Your task to perform on an android device: Go to Yahoo.com Image 0: 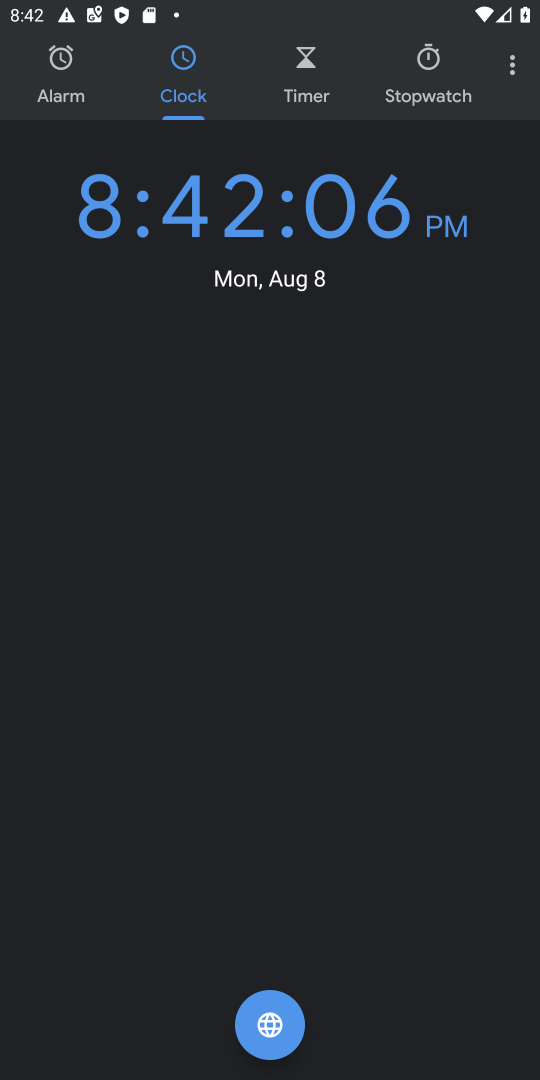
Step 0: press home button
Your task to perform on an android device: Go to Yahoo.com Image 1: 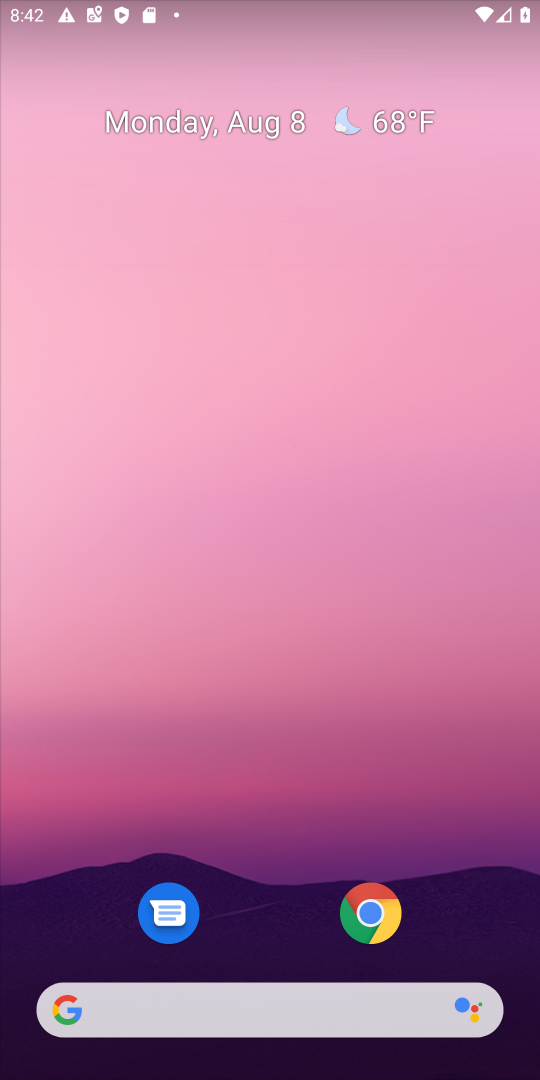
Step 1: click (367, 917)
Your task to perform on an android device: Go to Yahoo.com Image 2: 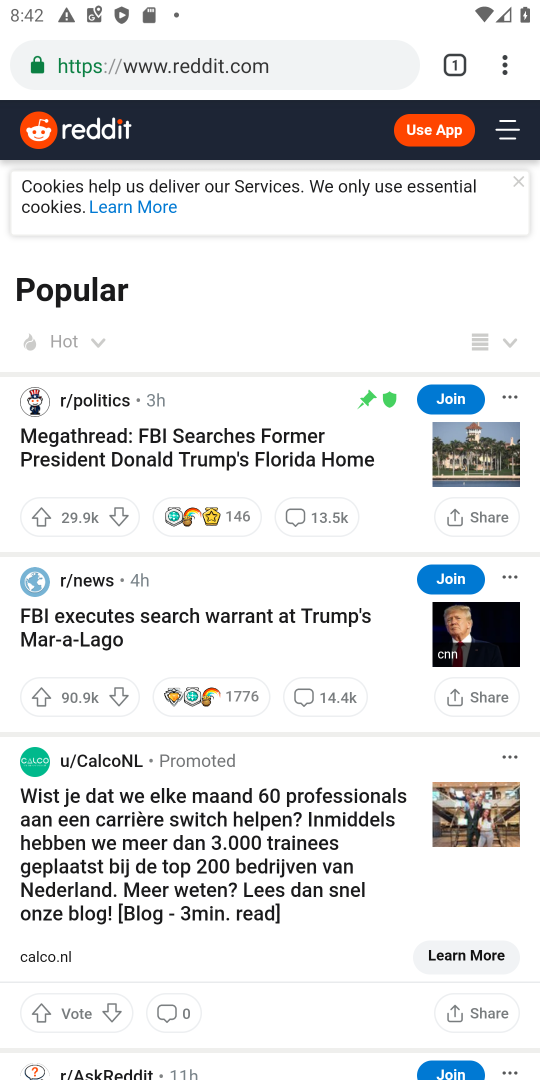
Step 2: click (316, 74)
Your task to perform on an android device: Go to Yahoo.com Image 3: 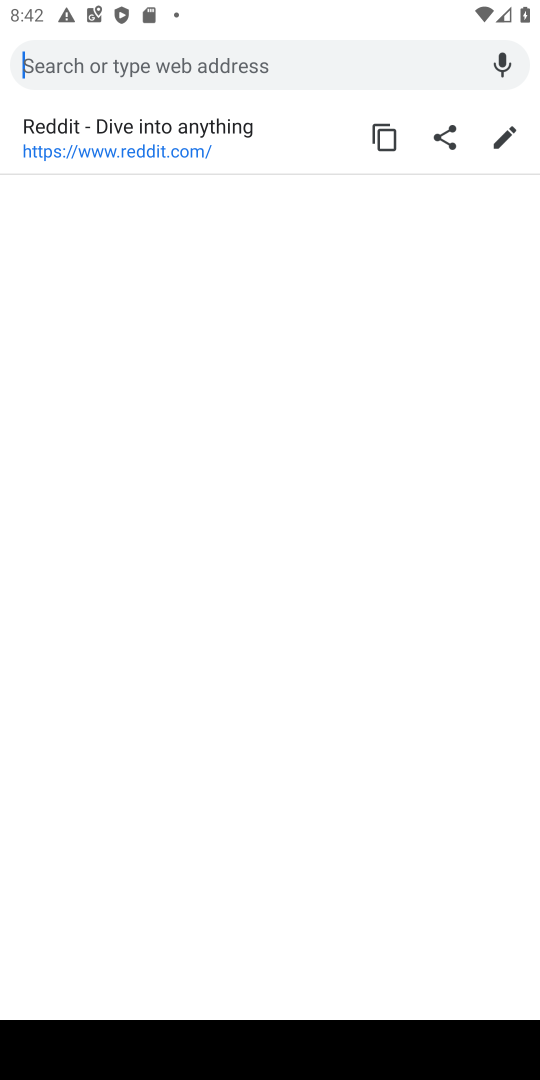
Step 3: type "Yahoo.com"
Your task to perform on an android device: Go to Yahoo.com Image 4: 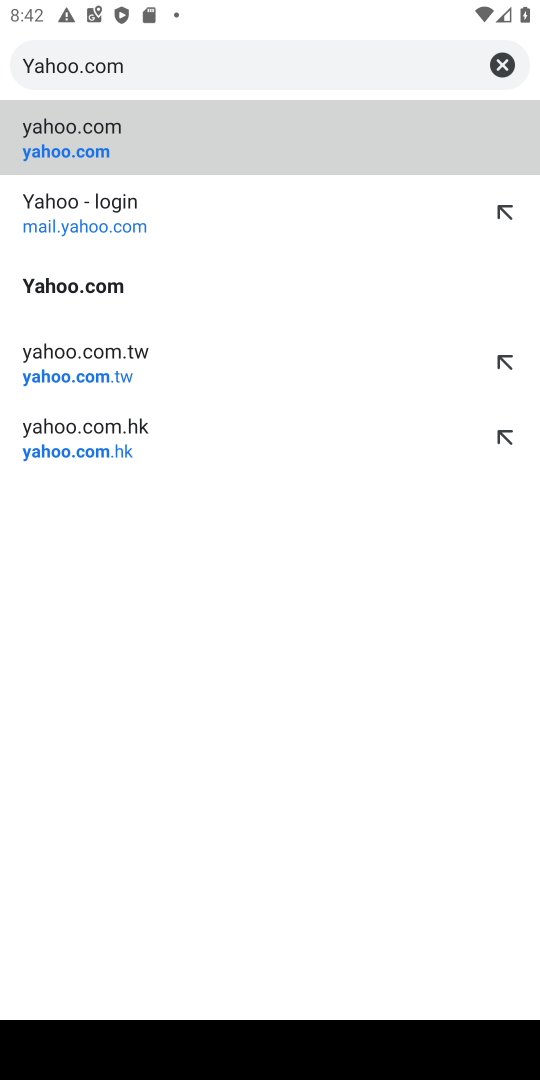
Step 4: click (81, 289)
Your task to perform on an android device: Go to Yahoo.com Image 5: 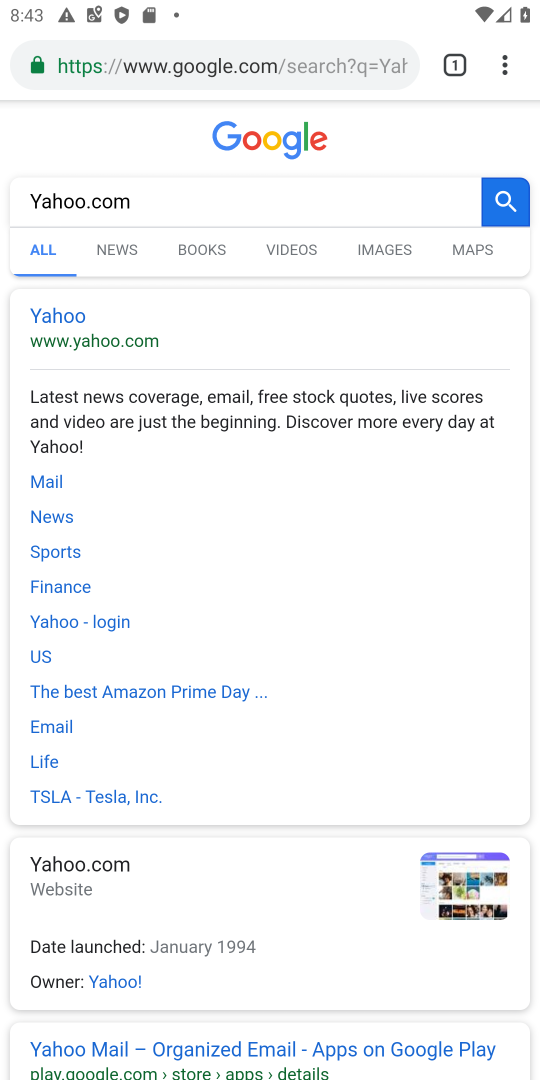
Step 5: click (69, 335)
Your task to perform on an android device: Go to Yahoo.com Image 6: 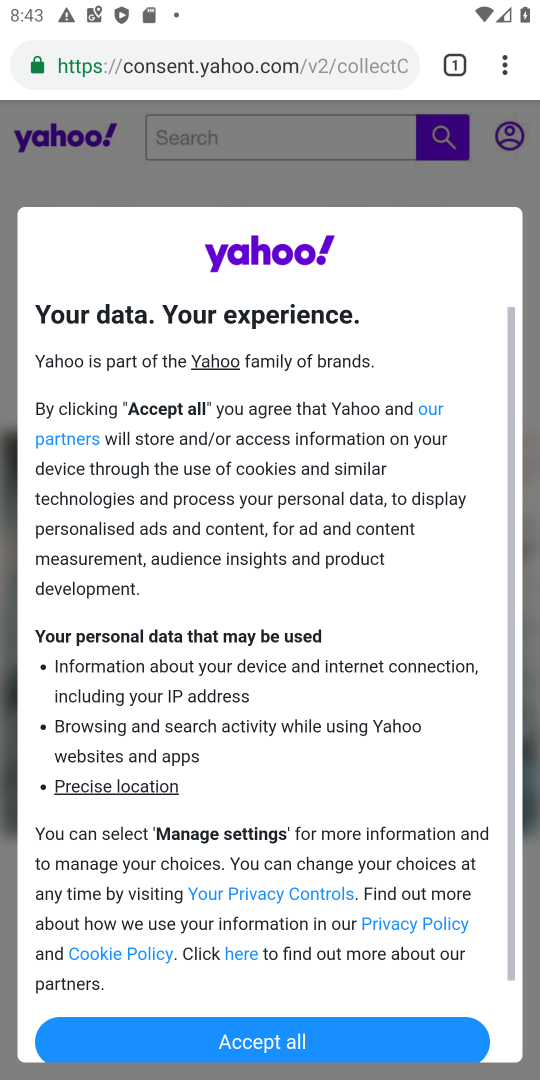
Step 6: click (249, 1034)
Your task to perform on an android device: Go to Yahoo.com Image 7: 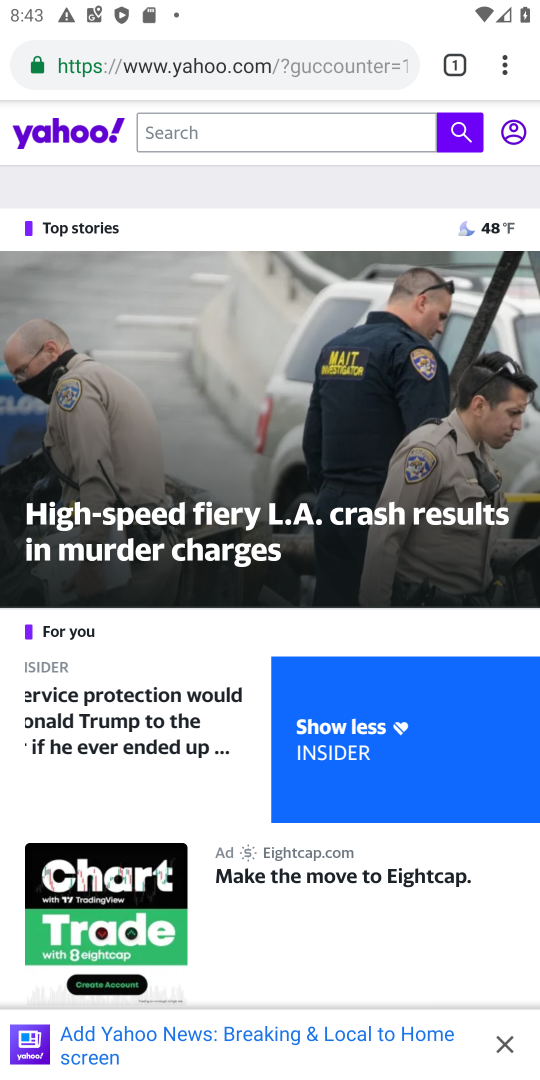
Step 7: task complete